Your task to perform on an android device: add a contact Image 0: 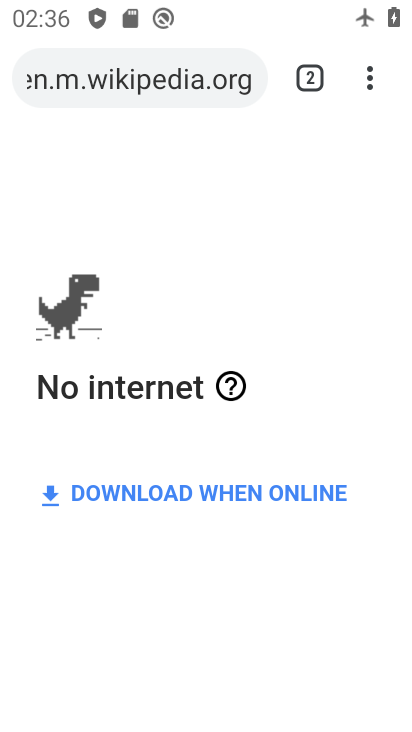
Step 0: press home button
Your task to perform on an android device: add a contact Image 1: 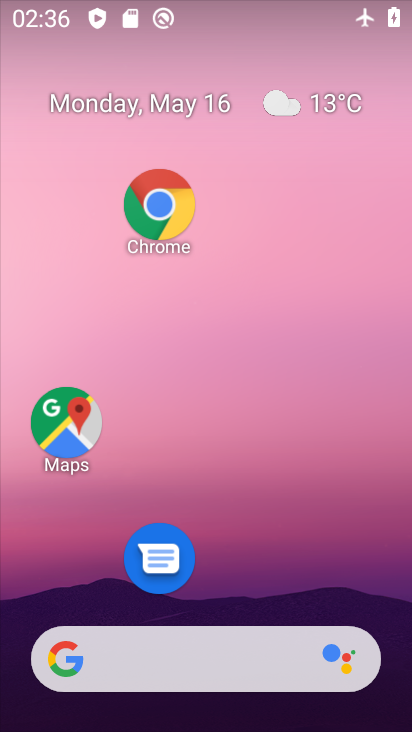
Step 1: drag from (242, 602) to (288, 54)
Your task to perform on an android device: add a contact Image 2: 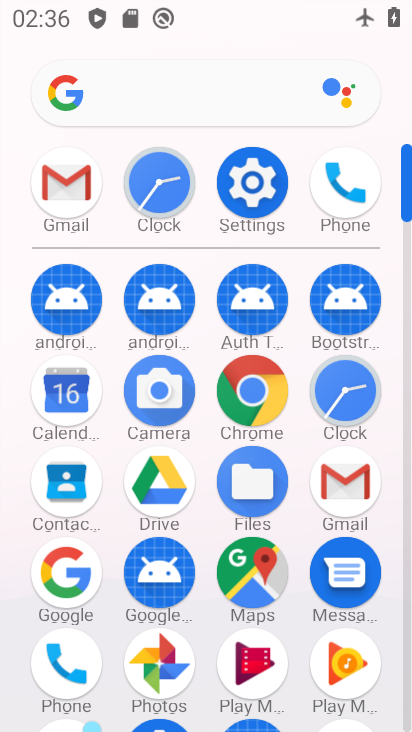
Step 2: click (62, 680)
Your task to perform on an android device: add a contact Image 3: 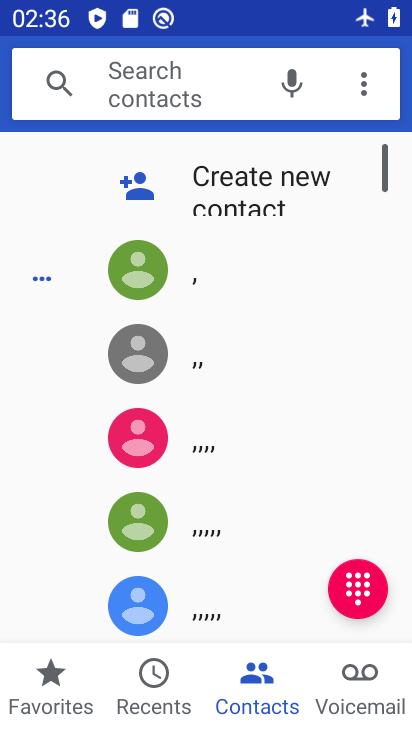
Step 3: click (271, 178)
Your task to perform on an android device: add a contact Image 4: 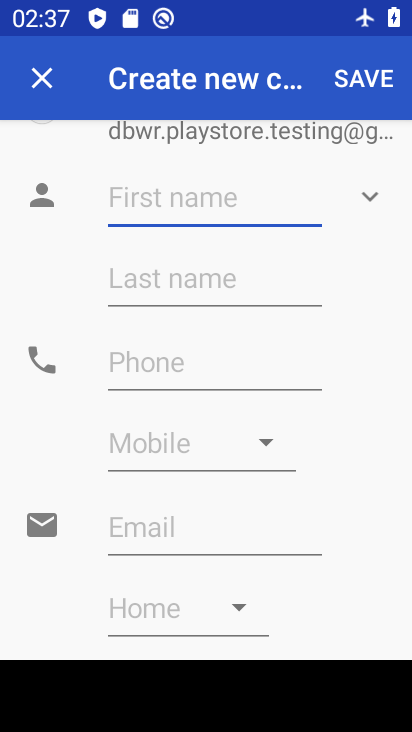
Step 4: type "vv"
Your task to perform on an android device: add a contact Image 5: 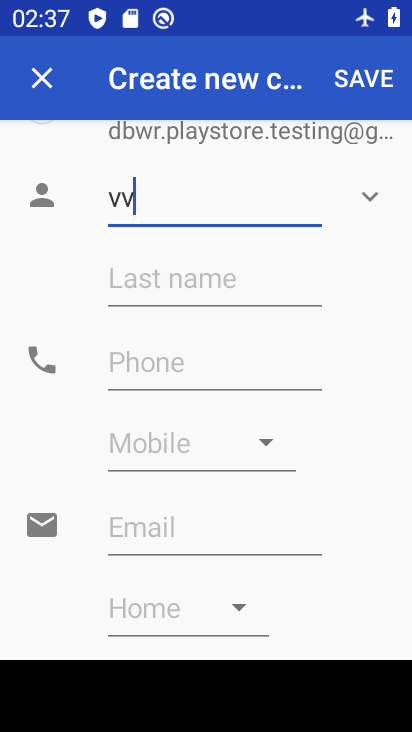
Step 5: type ""
Your task to perform on an android device: add a contact Image 6: 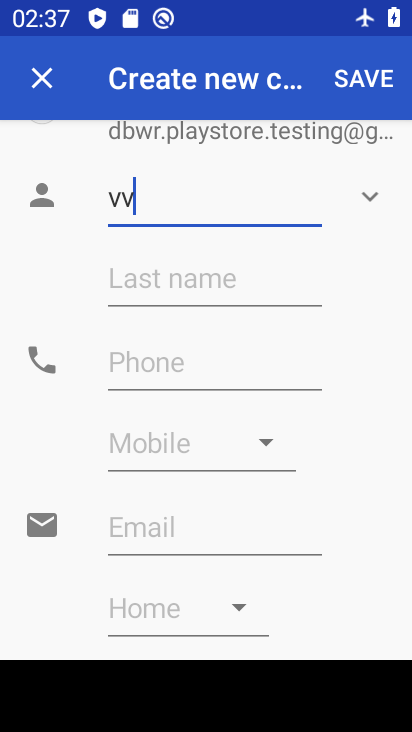
Step 6: click (211, 377)
Your task to perform on an android device: add a contact Image 7: 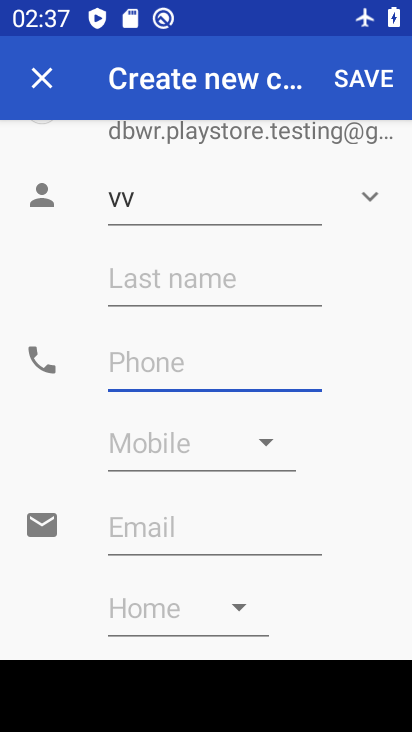
Step 7: type "43"
Your task to perform on an android device: add a contact Image 8: 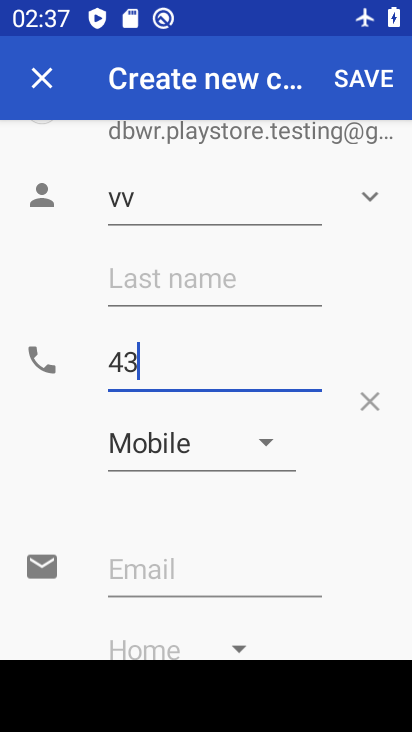
Step 8: type ""
Your task to perform on an android device: add a contact Image 9: 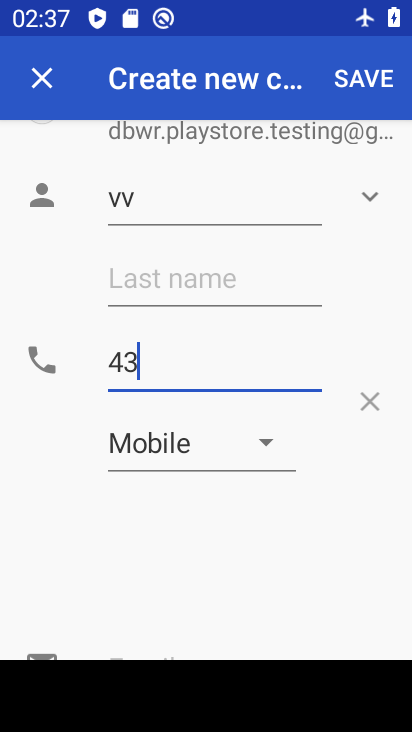
Step 9: click (353, 78)
Your task to perform on an android device: add a contact Image 10: 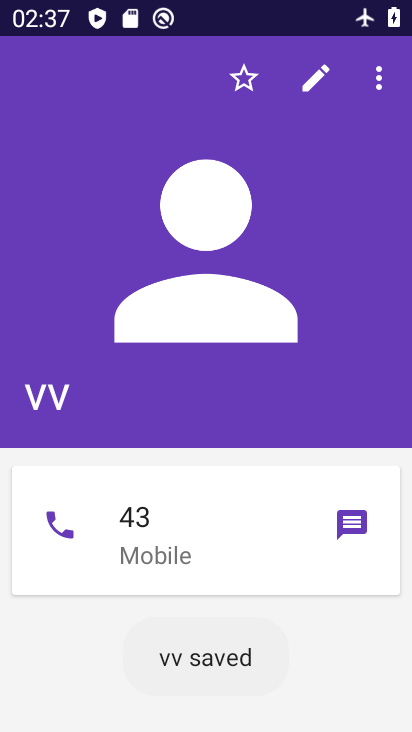
Step 10: task complete